Your task to perform on an android device: check google app version Image 0: 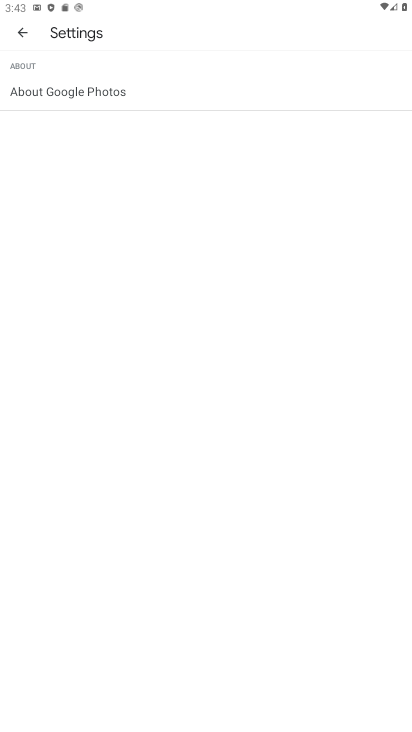
Step 0: press home button
Your task to perform on an android device: check google app version Image 1: 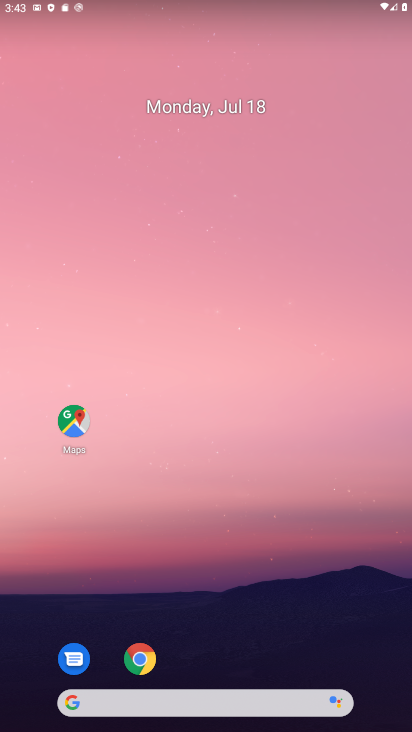
Step 1: drag from (309, 655) to (286, 126)
Your task to perform on an android device: check google app version Image 2: 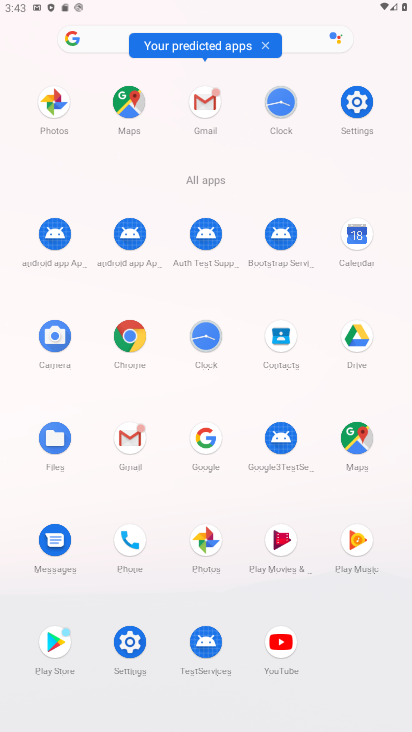
Step 2: click (130, 341)
Your task to perform on an android device: check google app version Image 3: 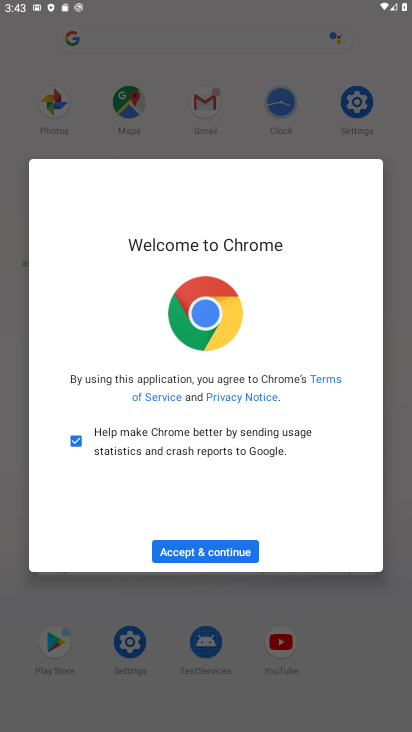
Step 3: click (225, 554)
Your task to perform on an android device: check google app version Image 4: 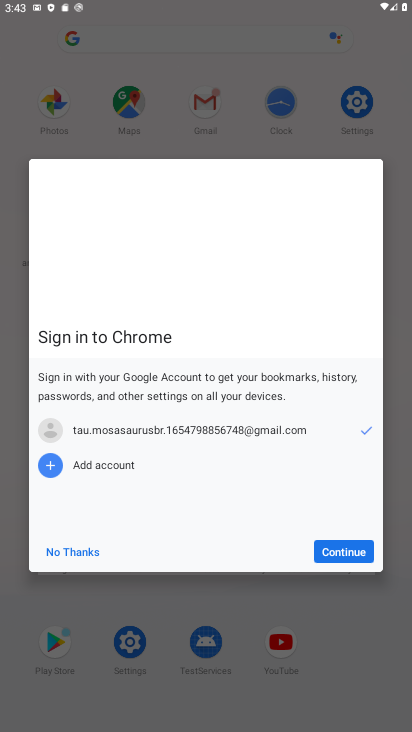
Step 4: click (336, 549)
Your task to perform on an android device: check google app version Image 5: 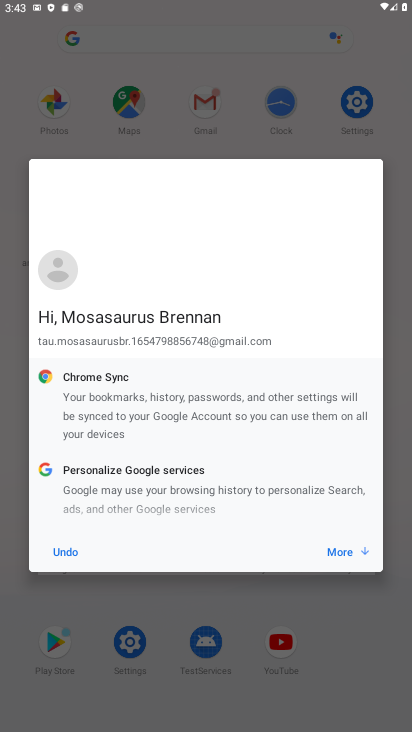
Step 5: click (336, 549)
Your task to perform on an android device: check google app version Image 6: 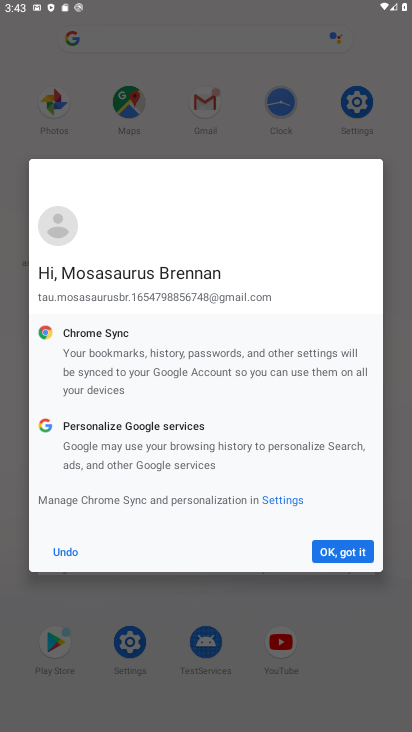
Step 6: click (336, 549)
Your task to perform on an android device: check google app version Image 7: 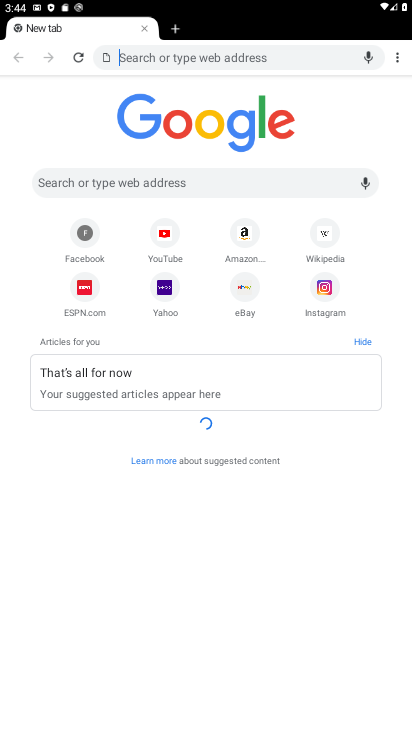
Step 7: click (406, 64)
Your task to perform on an android device: check google app version Image 8: 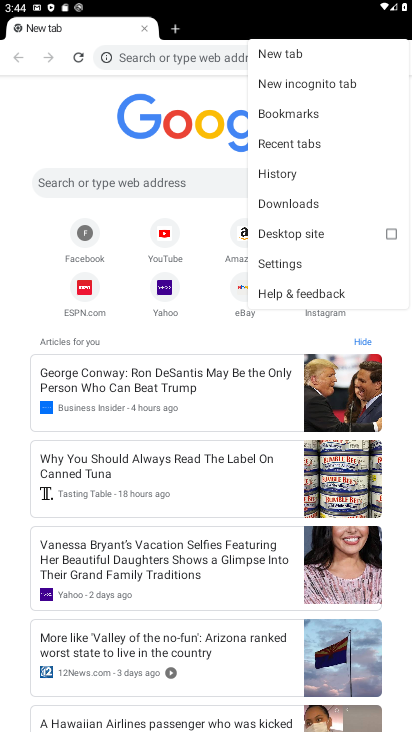
Step 8: click (354, 290)
Your task to perform on an android device: check google app version Image 9: 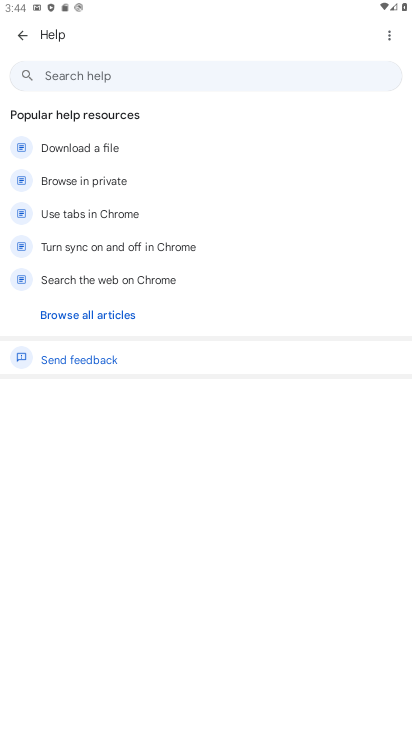
Step 9: click (393, 29)
Your task to perform on an android device: check google app version Image 10: 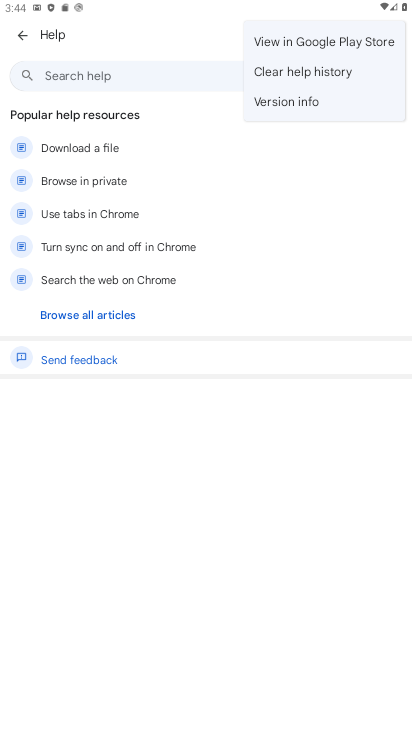
Step 10: click (352, 108)
Your task to perform on an android device: check google app version Image 11: 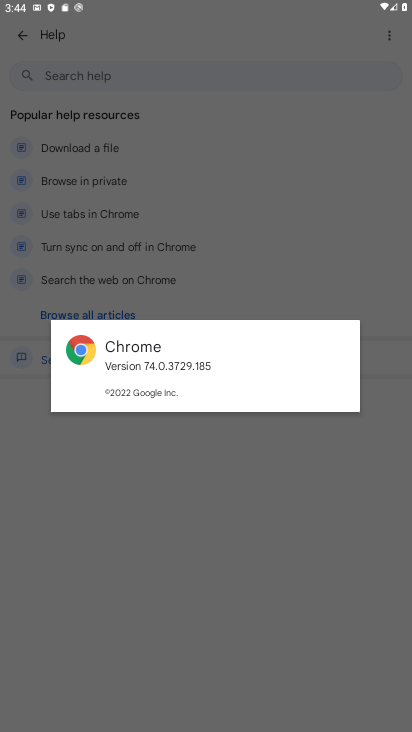
Step 11: task complete